Your task to perform on an android device: turn on priority inbox in the gmail app Image 0: 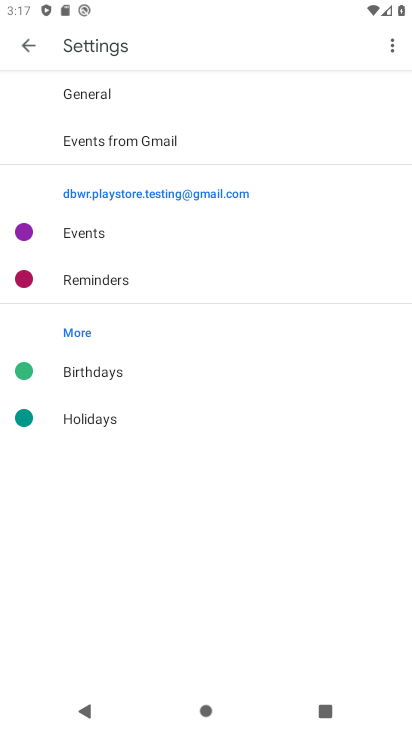
Step 0: press home button
Your task to perform on an android device: turn on priority inbox in the gmail app Image 1: 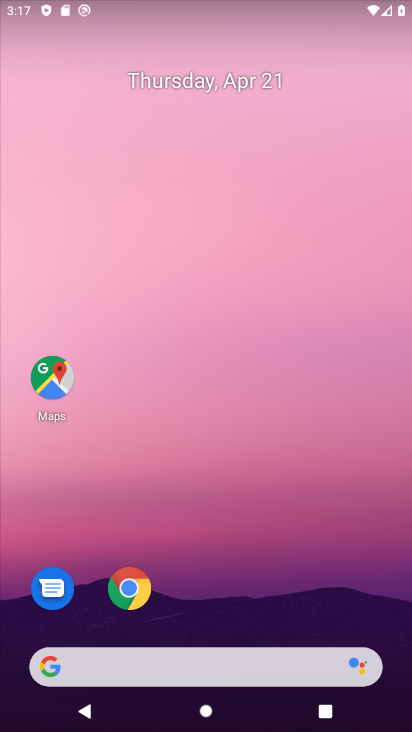
Step 1: drag from (152, 624) to (156, 107)
Your task to perform on an android device: turn on priority inbox in the gmail app Image 2: 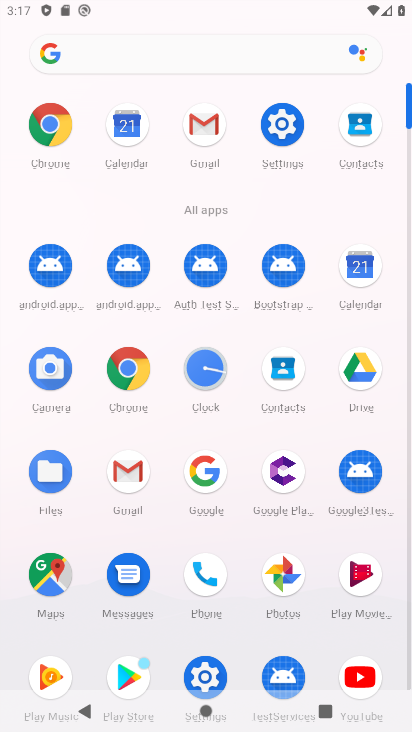
Step 2: click (123, 467)
Your task to perform on an android device: turn on priority inbox in the gmail app Image 3: 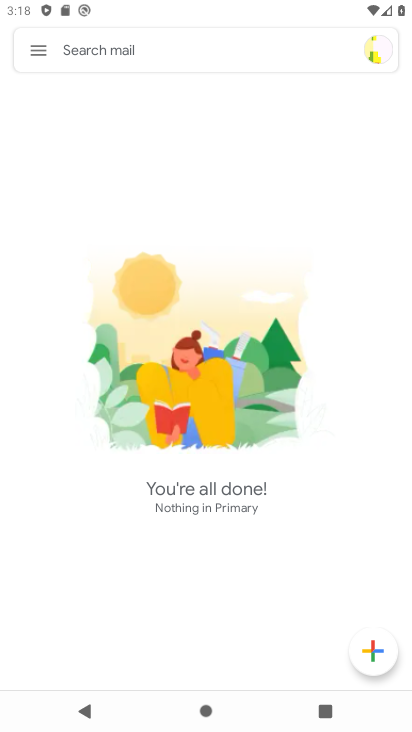
Step 3: click (34, 43)
Your task to perform on an android device: turn on priority inbox in the gmail app Image 4: 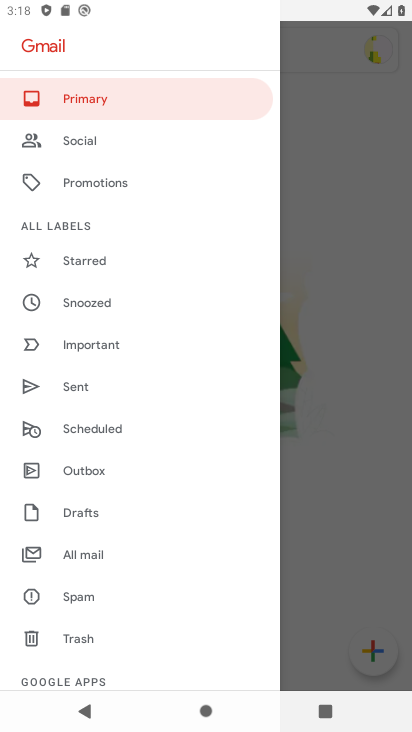
Step 4: drag from (112, 556) to (118, 38)
Your task to perform on an android device: turn on priority inbox in the gmail app Image 5: 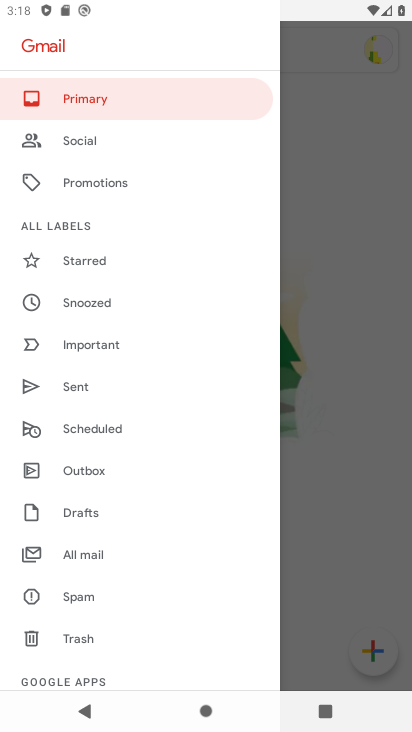
Step 5: drag from (94, 555) to (124, 118)
Your task to perform on an android device: turn on priority inbox in the gmail app Image 6: 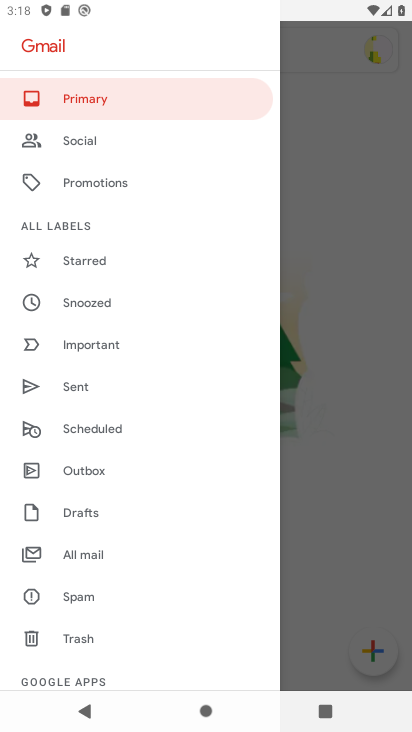
Step 6: drag from (151, 639) to (177, 87)
Your task to perform on an android device: turn on priority inbox in the gmail app Image 7: 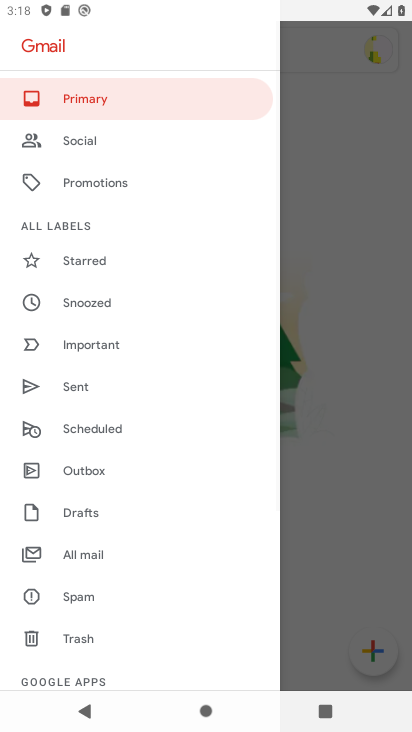
Step 7: drag from (86, 632) to (106, 53)
Your task to perform on an android device: turn on priority inbox in the gmail app Image 8: 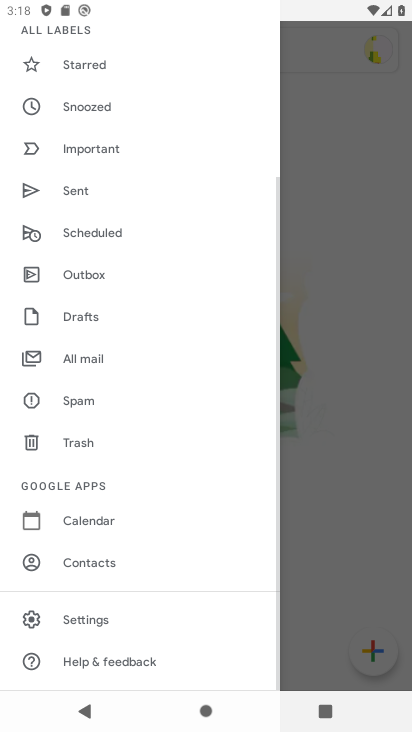
Step 8: click (69, 614)
Your task to perform on an android device: turn on priority inbox in the gmail app Image 9: 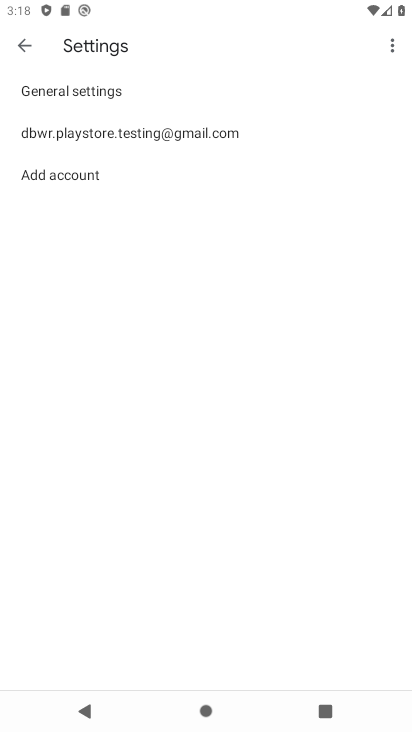
Step 9: click (97, 137)
Your task to perform on an android device: turn on priority inbox in the gmail app Image 10: 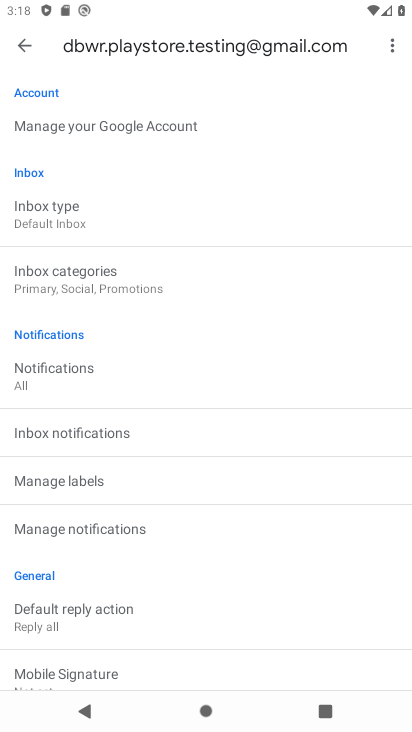
Step 10: click (147, 220)
Your task to perform on an android device: turn on priority inbox in the gmail app Image 11: 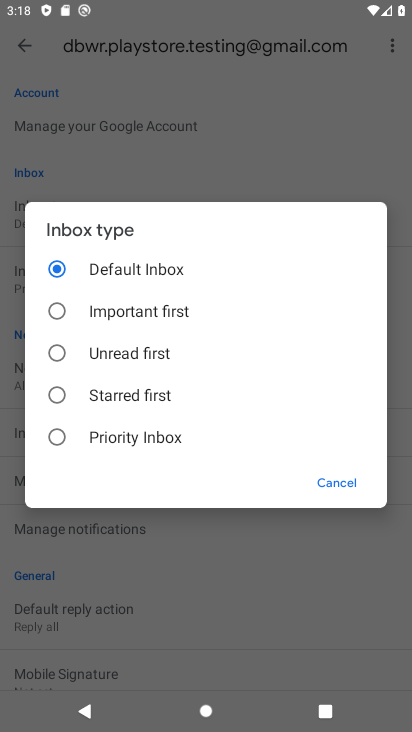
Step 11: click (117, 449)
Your task to perform on an android device: turn on priority inbox in the gmail app Image 12: 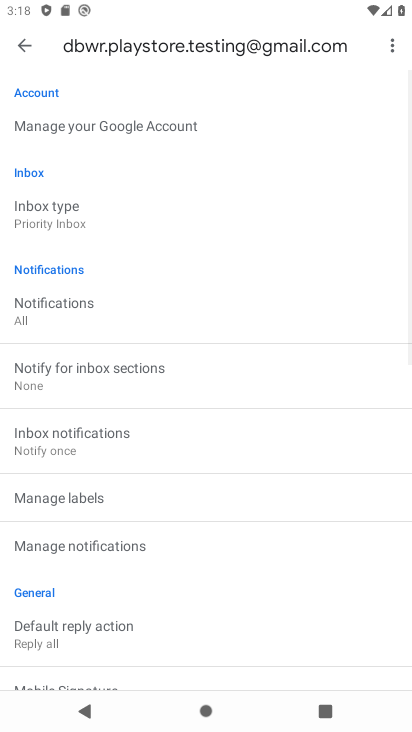
Step 12: task complete